Your task to perform on an android device: open app "Indeed Job Search" (install if not already installed) Image 0: 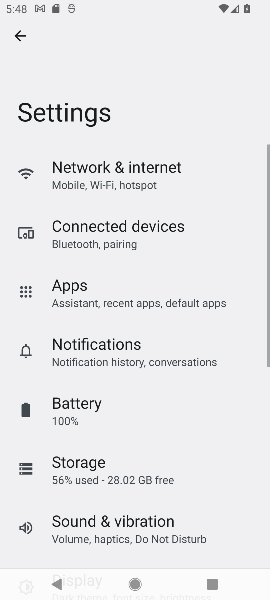
Step 0: press home button
Your task to perform on an android device: open app "Indeed Job Search" (install if not already installed) Image 1: 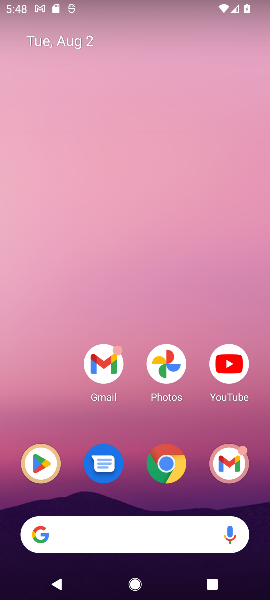
Step 1: click (41, 458)
Your task to perform on an android device: open app "Indeed Job Search" (install if not already installed) Image 2: 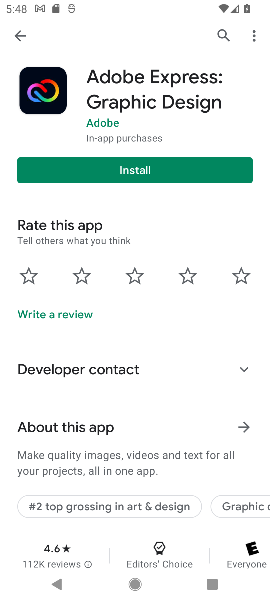
Step 2: click (221, 32)
Your task to perform on an android device: open app "Indeed Job Search" (install if not already installed) Image 3: 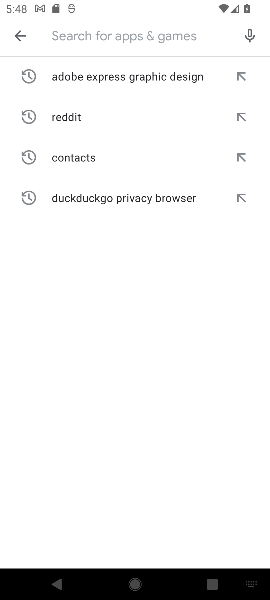
Step 3: type "Indeed Job Search"
Your task to perform on an android device: open app "Indeed Job Search" (install if not already installed) Image 4: 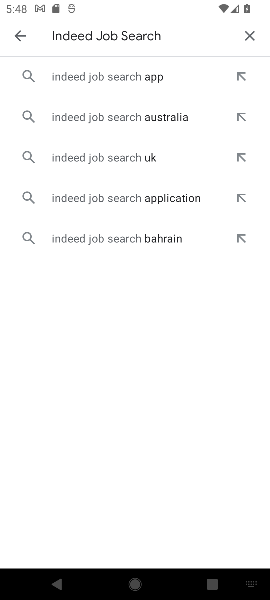
Step 4: click (153, 78)
Your task to perform on an android device: open app "Indeed Job Search" (install if not already installed) Image 5: 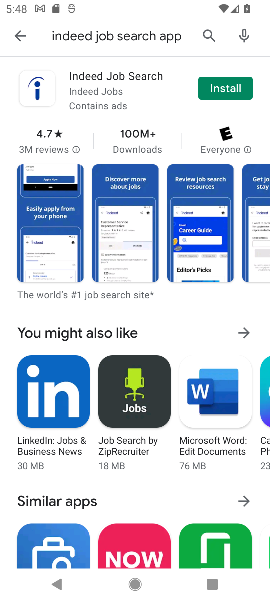
Step 5: click (235, 88)
Your task to perform on an android device: open app "Indeed Job Search" (install if not already installed) Image 6: 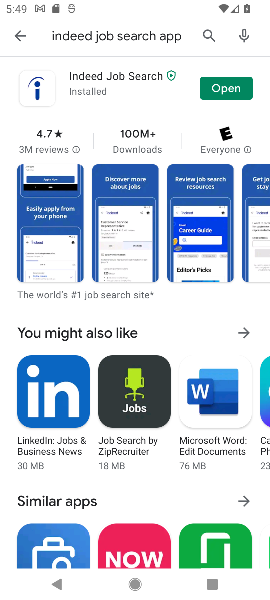
Step 6: click (237, 83)
Your task to perform on an android device: open app "Indeed Job Search" (install if not already installed) Image 7: 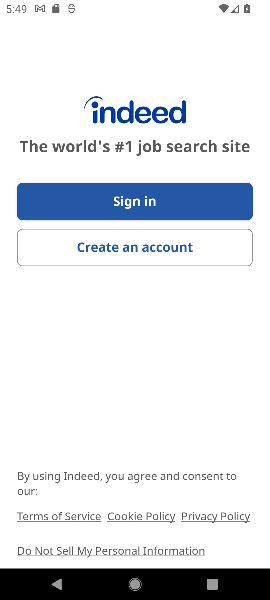
Step 7: task complete